Your task to perform on an android device: see creations saved in the google photos Image 0: 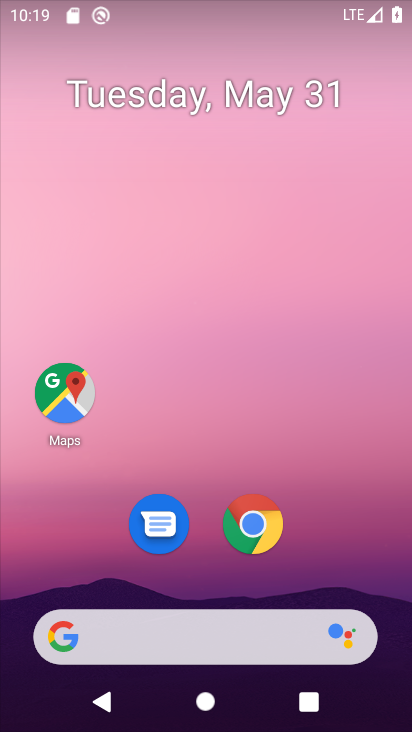
Step 0: drag from (300, 557) to (312, 16)
Your task to perform on an android device: see creations saved in the google photos Image 1: 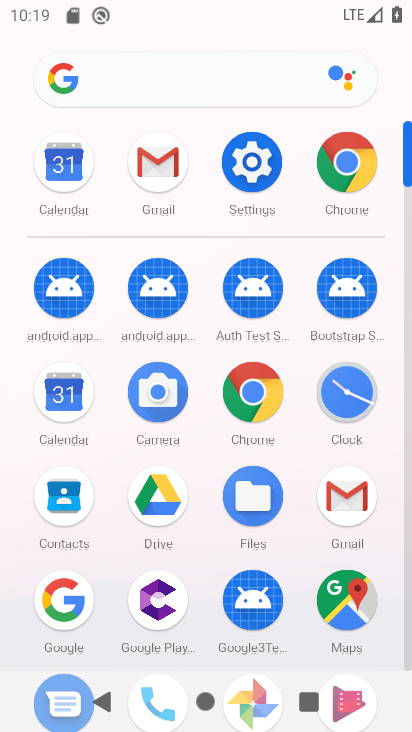
Step 1: drag from (202, 360) to (259, 127)
Your task to perform on an android device: see creations saved in the google photos Image 2: 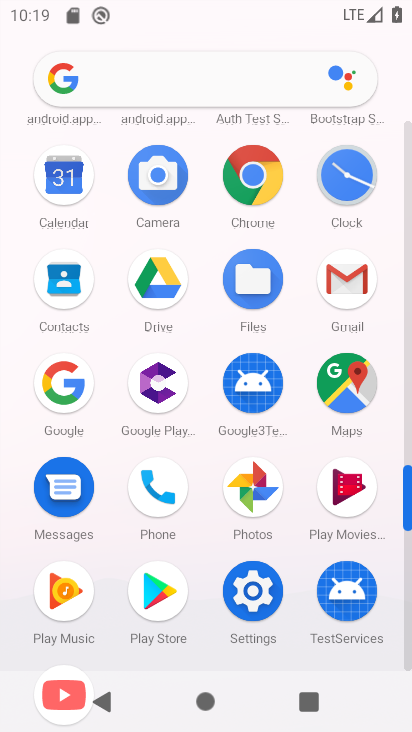
Step 2: click (266, 493)
Your task to perform on an android device: see creations saved in the google photos Image 3: 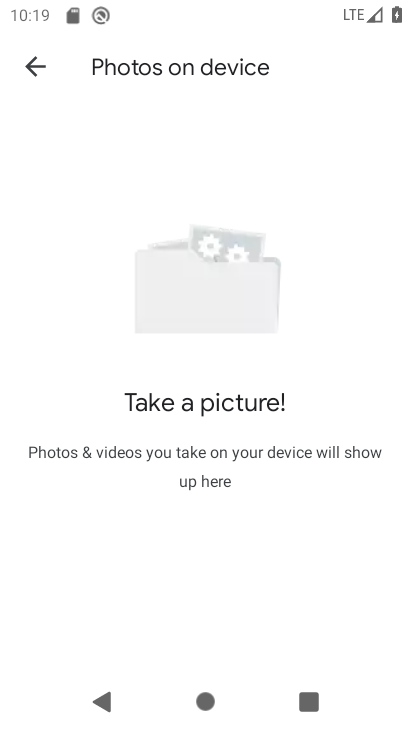
Step 3: click (38, 62)
Your task to perform on an android device: see creations saved in the google photos Image 4: 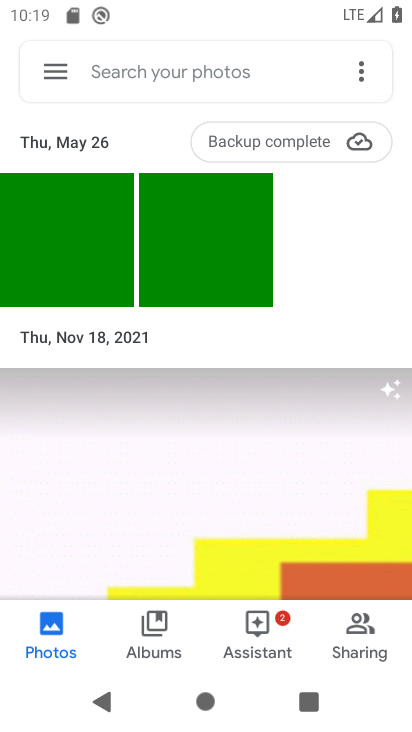
Step 4: click (130, 59)
Your task to perform on an android device: see creations saved in the google photos Image 5: 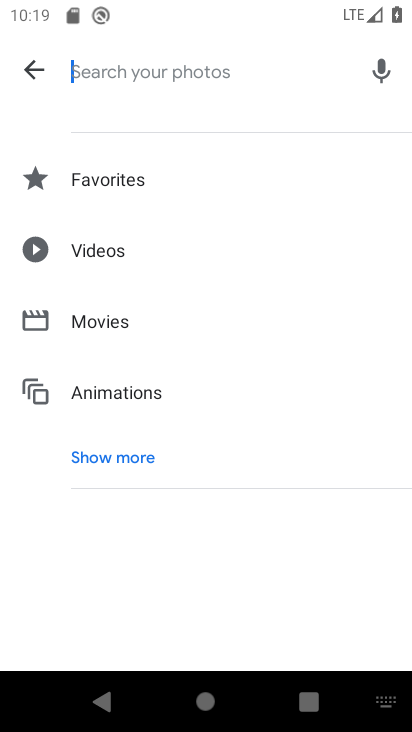
Step 5: click (91, 451)
Your task to perform on an android device: see creations saved in the google photos Image 6: 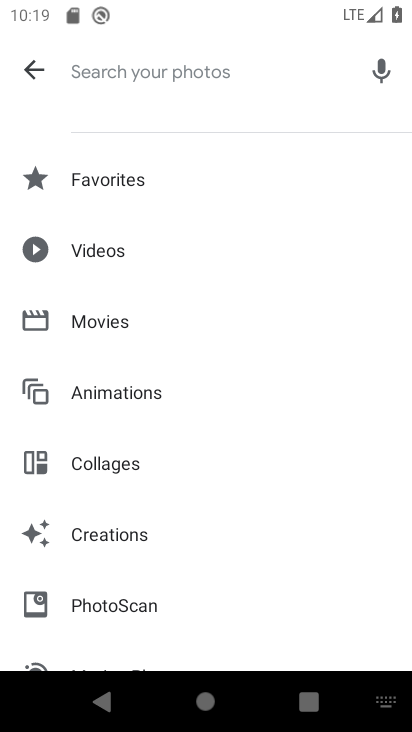
Step 6: click (103, 537)
Your task to perform on an android device: see creations saved in the google photos Image 7: 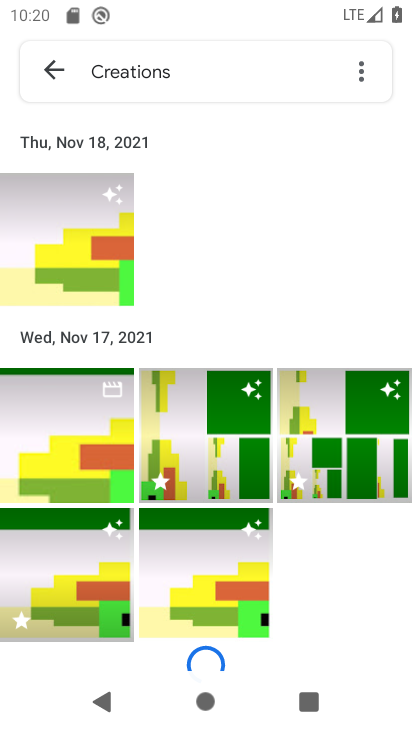
Step 7: task complete